Your task to perform on an android device: Open the Play Movies app and select the watchlist tab. Image 0: 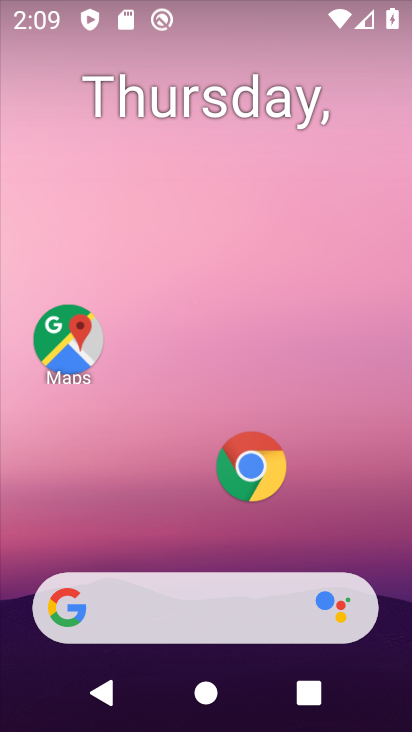
Step 0: drag from (207, 546) to (248, 208)
Your task to perform on an android device: Open the Play Movies app and select the watchlist tab. Image 1: 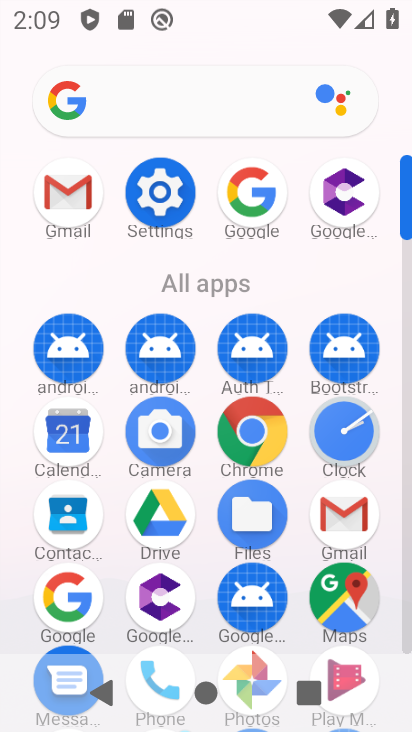
Step 1: drag from (300, 616) to (284, 285)
Your task to perform on an android device: Open the Play Movies app and select the watchlist tab. Image 2: 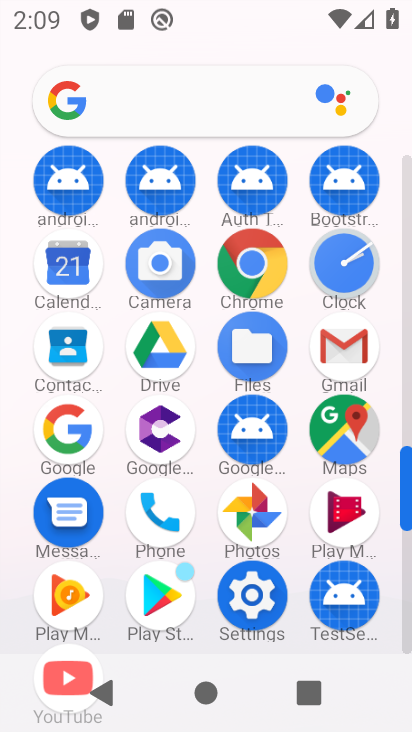
Step 2: click (341, 503)
Your task to perform on an android device: Open the Play Movies app and select the watchlist tab. Image 3: 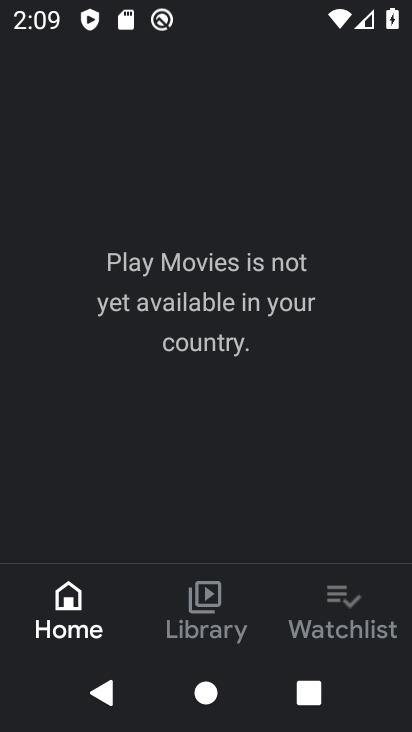
Step 3: click (326, 597)
Your task to perform on an android device: Open the Play Movies app and select the watchlist tab. Image 4: 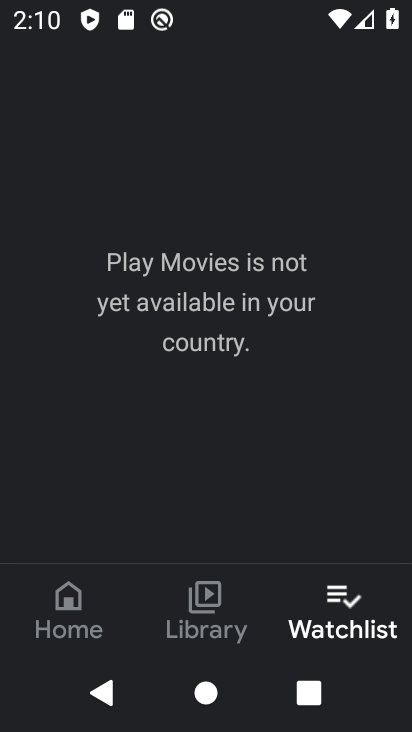
Step 4: task complete